Your task to perform on an android device: open device folders in google photos Image 0: 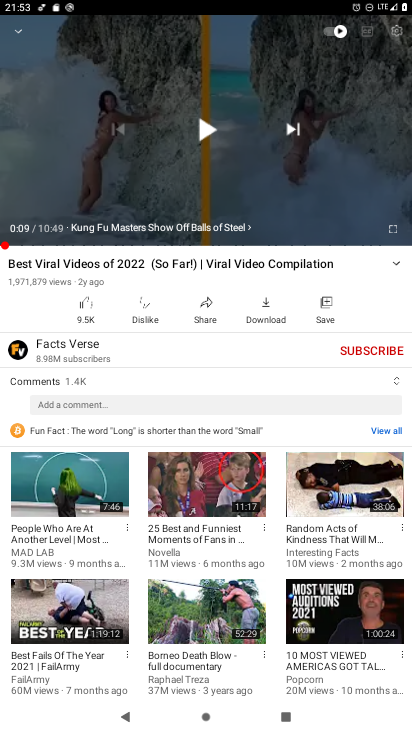
Step 0: press home button
Your task to perform on an android device: open device folders in google photos Image 1: 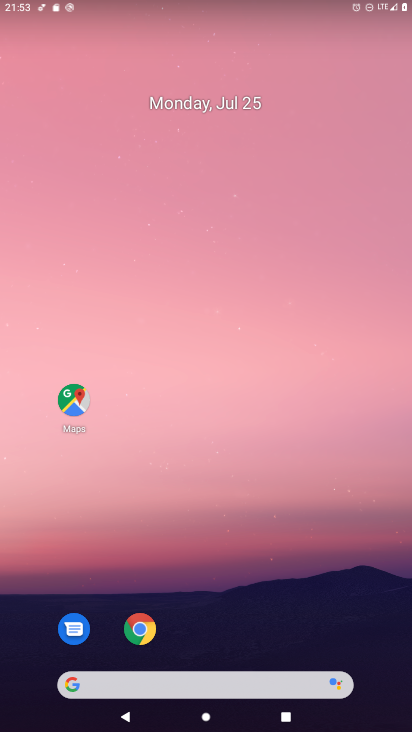
Step 1: drag from (188, 675) to (150, 175)
Your task to perform on an android device: open device folders in google photos Image 2: 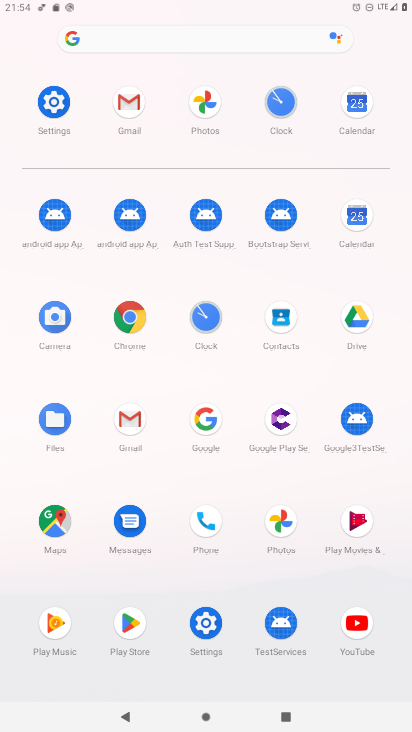
Step 2: click (203, 101)
Your task to perform on an android device: open device folders in google photos Image 3: 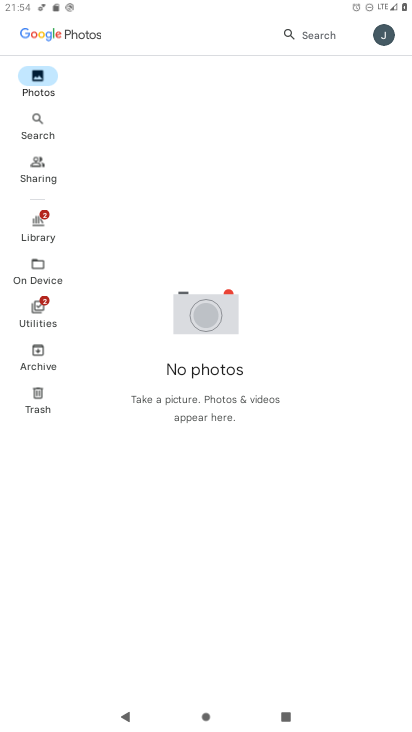
Step 3: click (32, 256)
Your task to perform on an android device: open device folders in google photos Image 4: 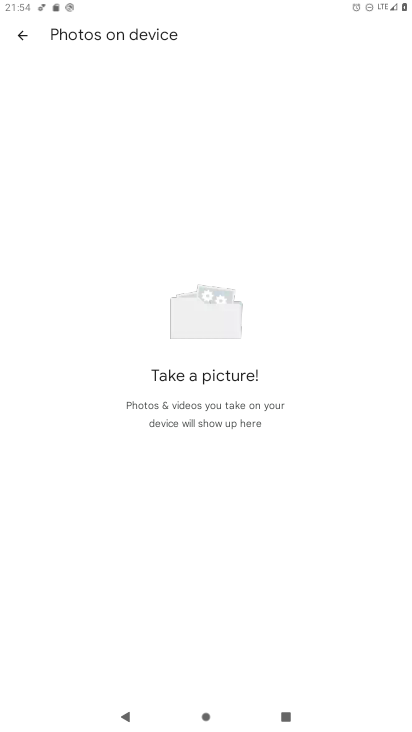
Step 4: task complete